Your task to perform on an android device: Search for Mexican restaurants on Maps Image 0: 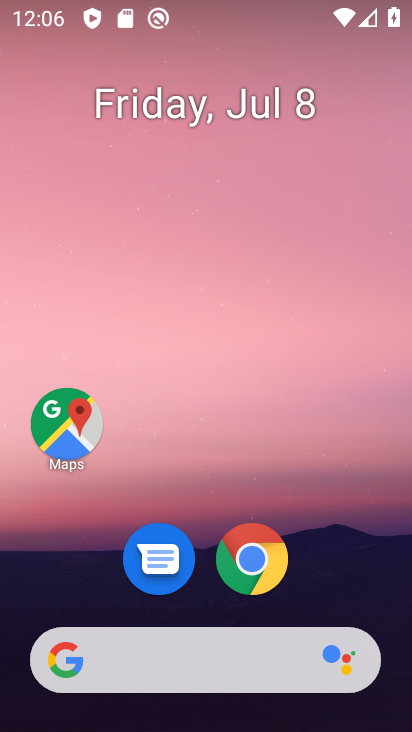
Step 0: drag from (212, 589) to (162, 58)
Your task to perform on an android device: Search for Mexican restaurants on Maps Image 1: 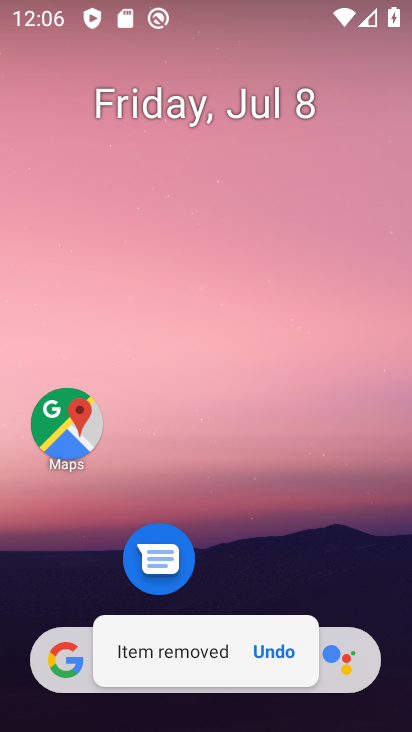
Step 1: click (272, 561)
Your task to perform on an android device: Search for Mexican restaurants on Maps Image 2: 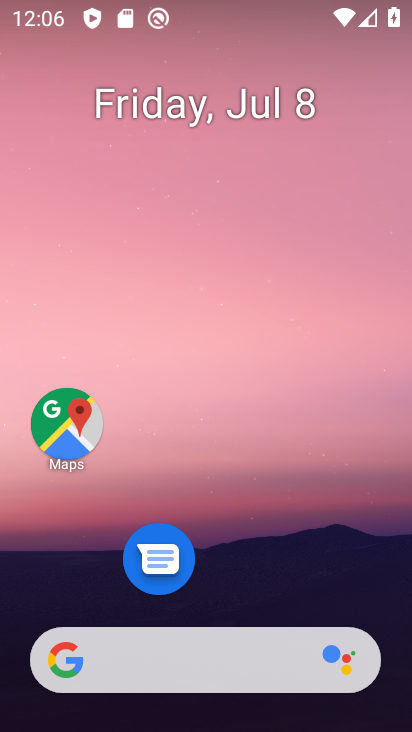
Step 2: drag from (263, 562) to (255, 100)
Your task to perform on an android device: Search for Mexican restaurants on Maps Image 3: 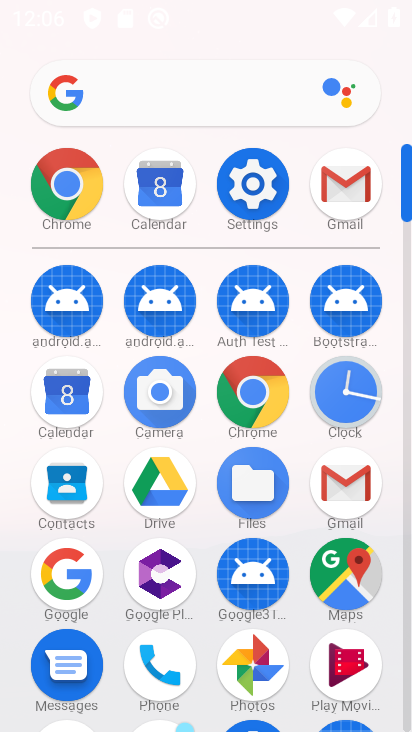
Step 3: click (331, 582)
Your task to perform on an android device: Search for Mexican restaurants on Maps Image 4: 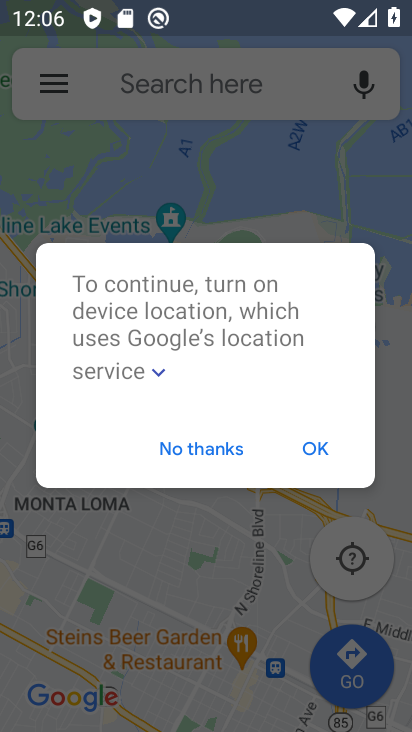
Step 4: click (311, 453)
Your task to perform on an android device: Search for Mexican restaurants on Maps Image 5: 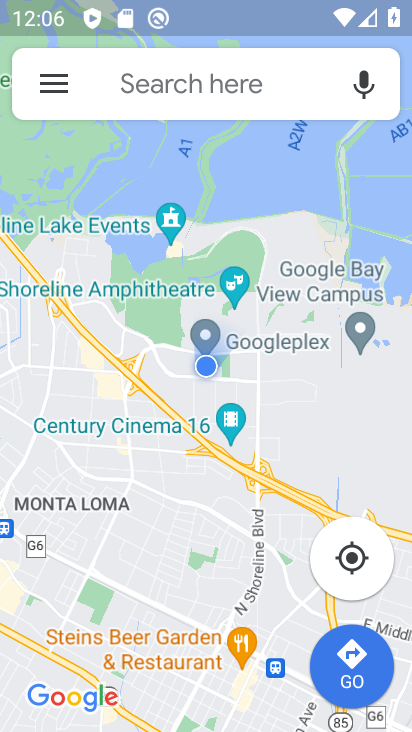
Step 5: click (214, 89)
Your task to perform on an android device: Search for Mexican restaurants on Maps Image 6: 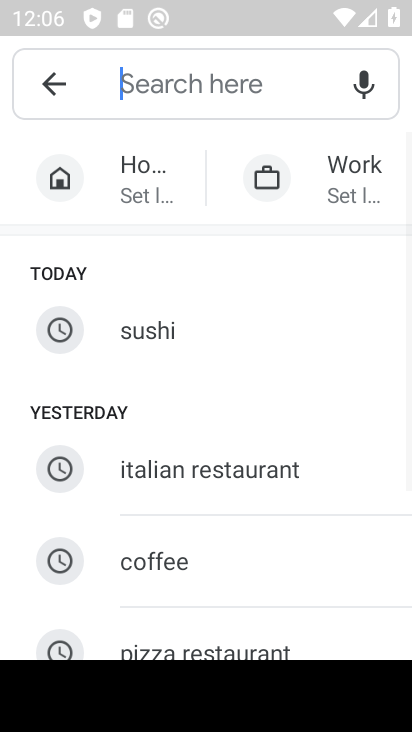
Step 6: drag from (225, 457) to (232, 290)
Your task to perform on an android device: Search for Mexican restaurants on Maps Image 7: 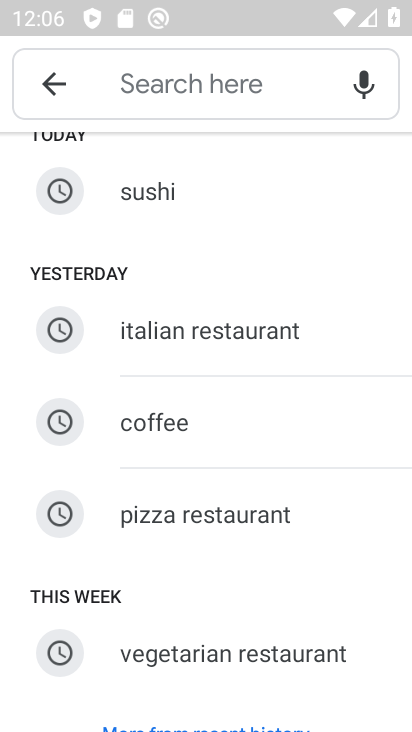
Step 7: drag from (256, 484) to (258, 164)
Your task to perform on an android device: Search for Mexican restaurants on Maps Image 8: 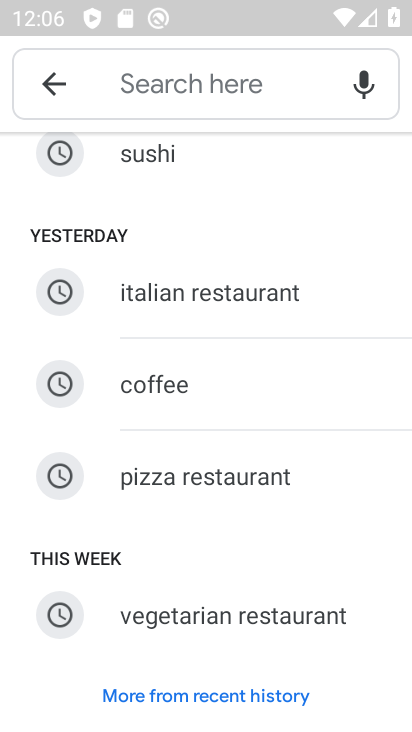
Step 8: click (222, 694)
Your task to perform on an android device: Search for Mexican restaurants on Maps Image 9: 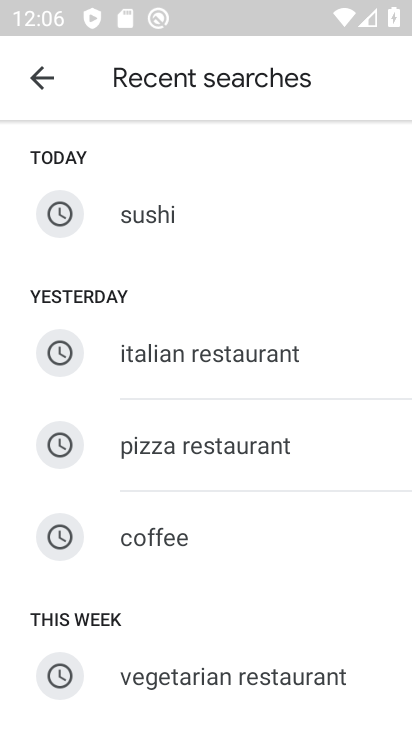
Step 9: drag from (223, 675) to (182, 98)
Your task to perform on an android device: Search for Mexican restaurants on Maps Image 10: 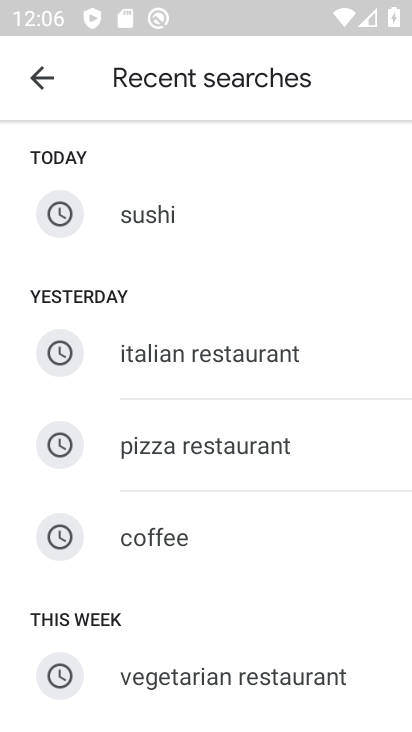
Step 10: click (33, 82)
Your task to perform on an android device: Search for Mexican restaurants on Maps Image 11: 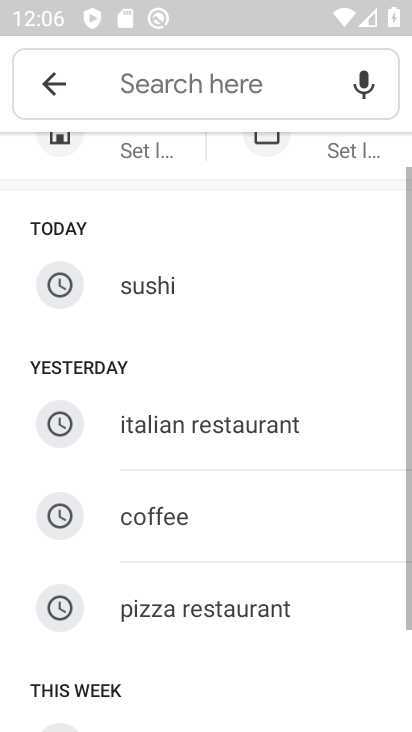
Step 11: click (138, 87)
Your task to perform on an android device: Search for Mexican restaurants on Maps Image 12: 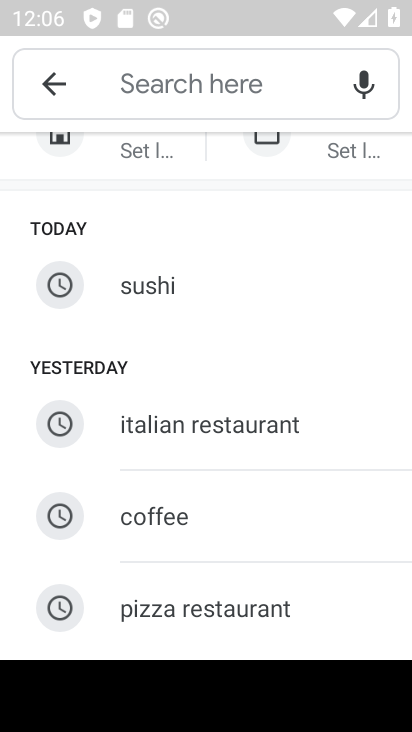
Step 12: type "Mexican restaurants"
Your task to perform on an android device: Search for Mexican restaurants on Maps Image 13: 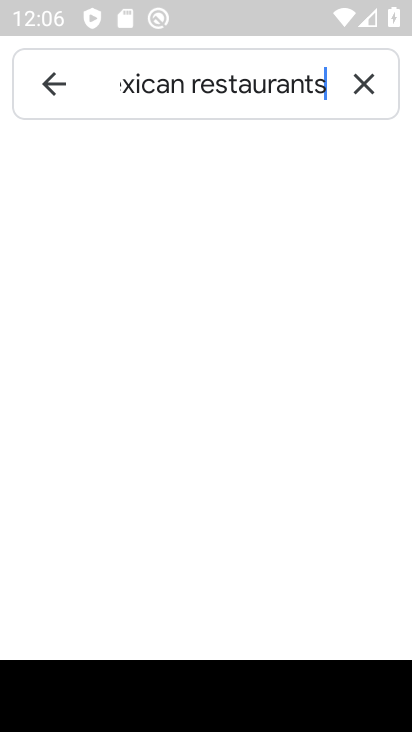
Step 13: type ""
Your task to perform on an android device: Search for Mexican restaurants on Maps Image 14: 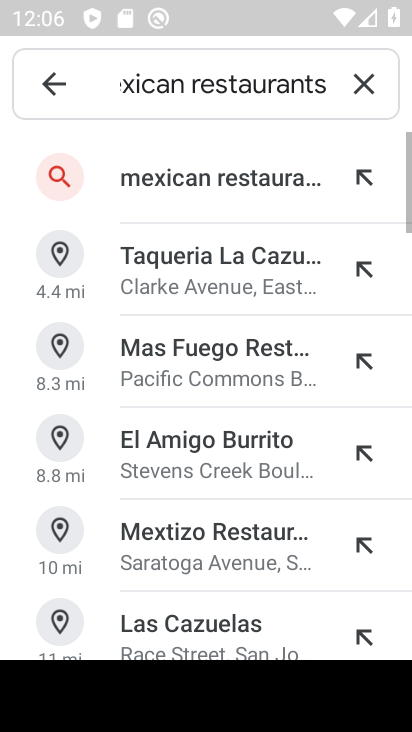
Step 14: click (136, 176)
Your task to perform on an android device: Search for Mexican restaurants on Maps Image 15: 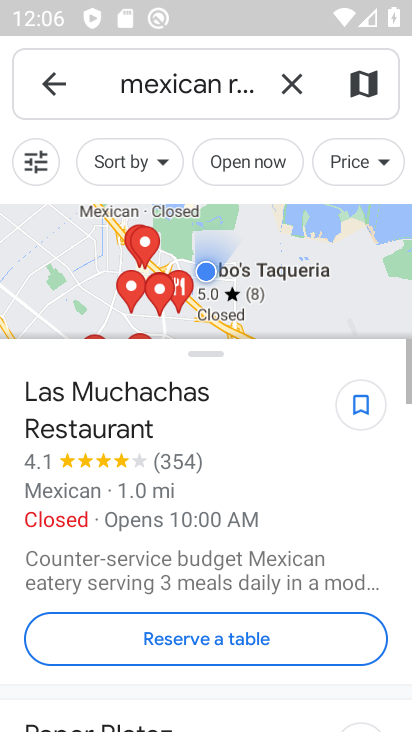
Step 15: task complete